Your task to perform on an android device: Open my contact list Image 0: 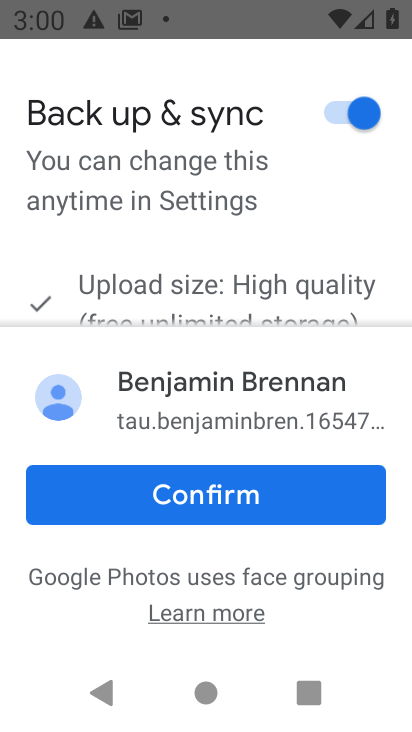
Step 0: task complete